Your task to perform on an android device: add a label to a message in the gmail app Image 0: 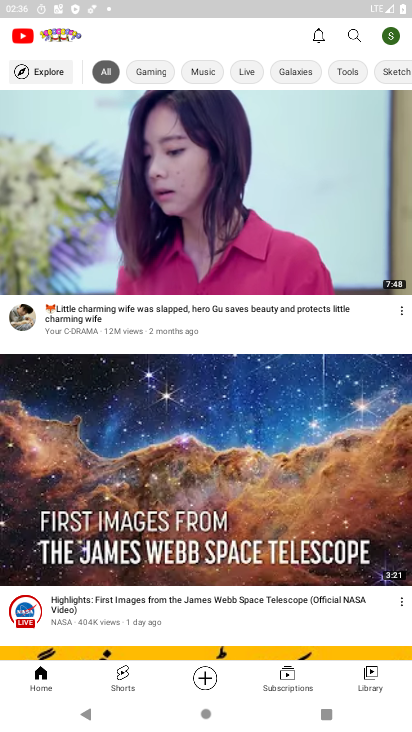
Step 0: press home button
Your task to perform on an android device: add a label to a message in the gmail app Image 1: 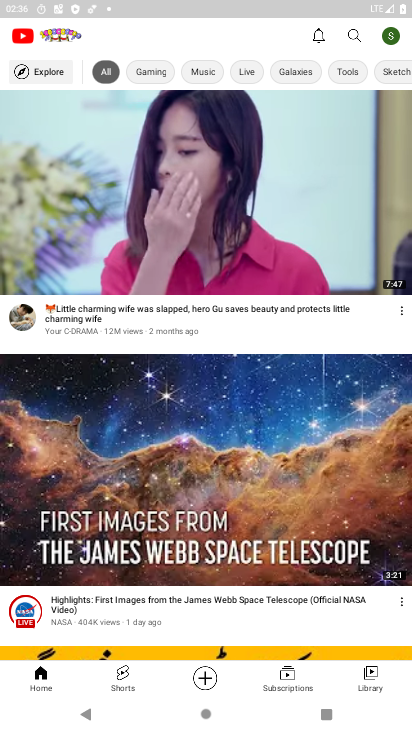
Step 1: press home button
Your task to perform on an android device: add a label to a message in the gmail app Image 2: 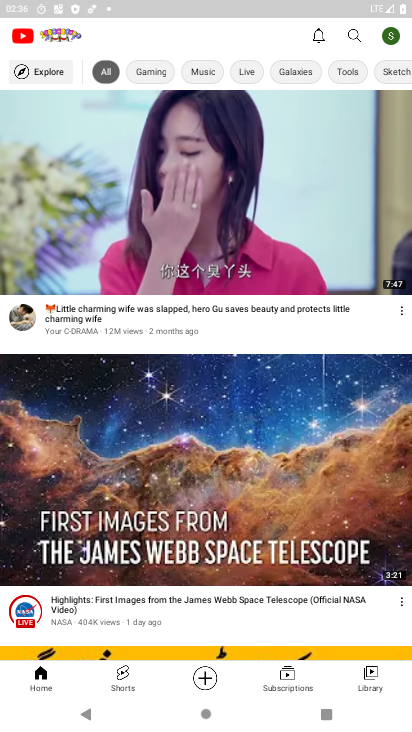
Step 2: click (324, 120)
Your task to perform on an android device: add a label to a message in the gmail app Image 3: 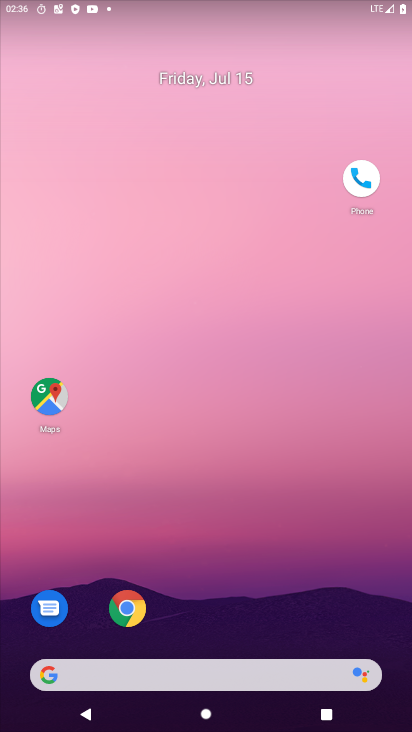
Step 3: drag from (174, 626) to (180, 3)
Your task to perform on an android device: add a label to a message in the gmail app Image 4: 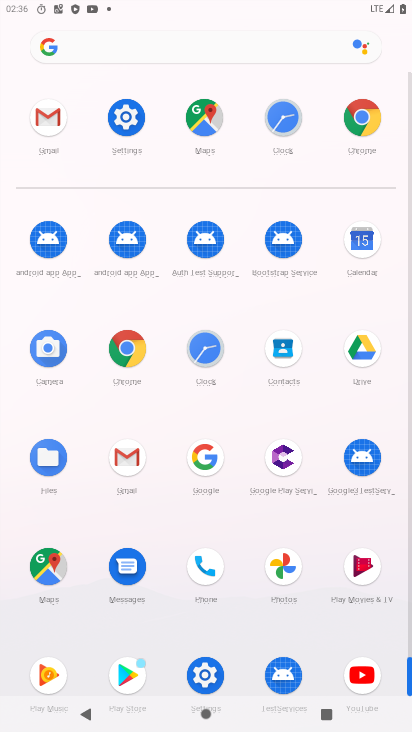
Step 4: click (125, 446)
Your task to perform on an android device: add a label to a message in the gmail app Image 5: 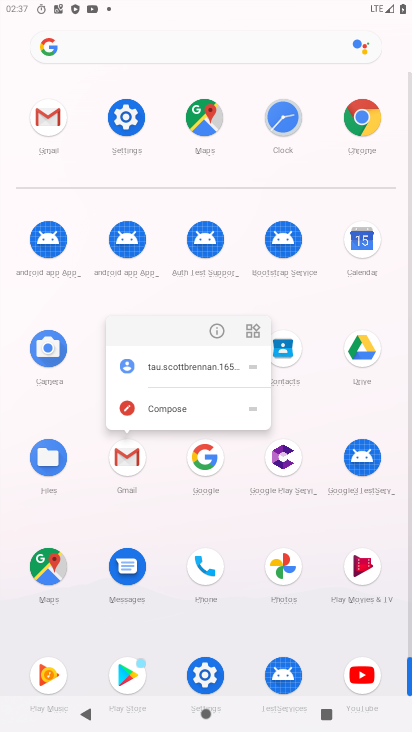
Step 5: click (212, 326)
Your task to perform on an android device: add a label to a message in the gmail app Image 6: 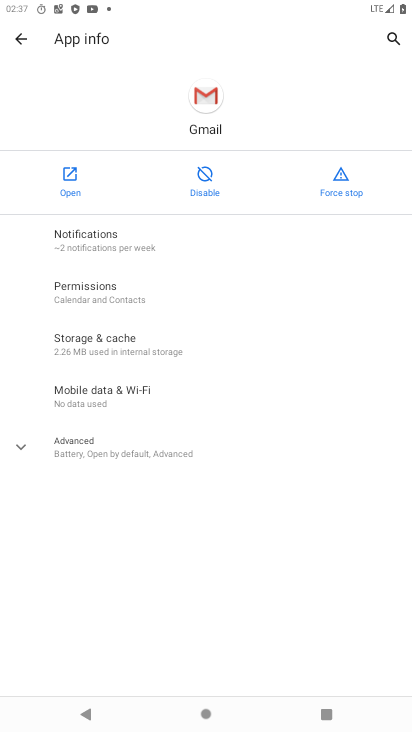
Step 6: click (65, 189)
Your task to perform on an android device: add a label to a message in the gmail app Image 7: 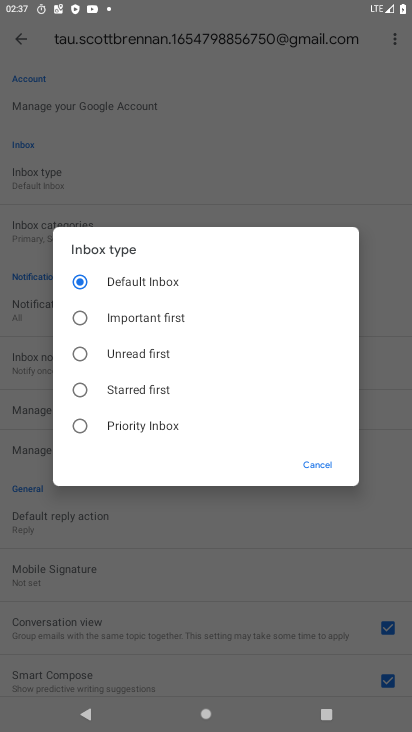
Step 7: click (319, 455)
Your task to perform on an android device: add a label to a message in the gmail app Image 8: 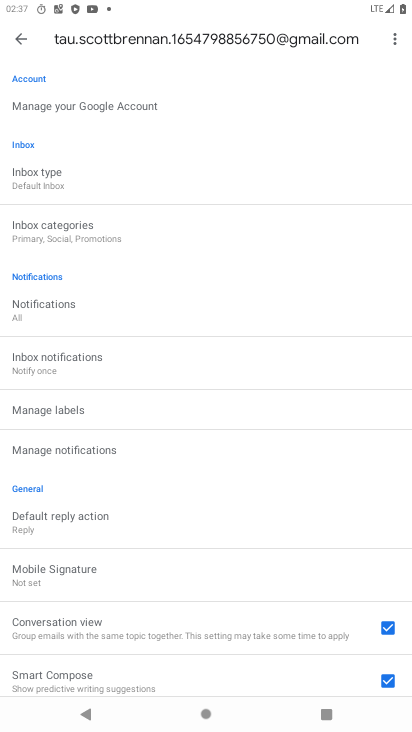
Step 8: press back button
Your task to perform on an android device: add a label to a message in the gmail app Image 9: 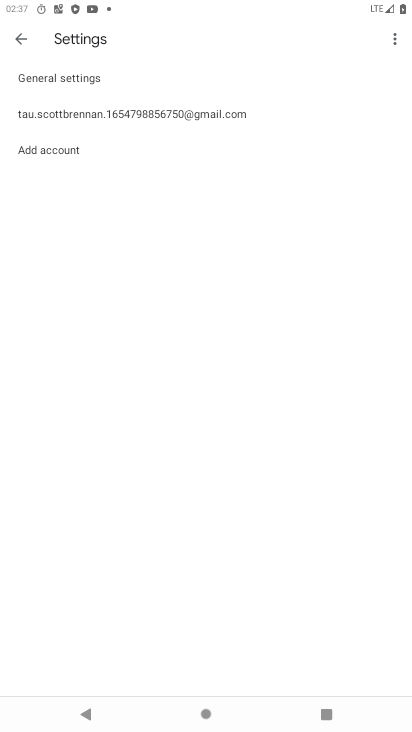
Step 9: press back button
Your task to perform on an android device: add a label to a message in the gmail app Image 10: 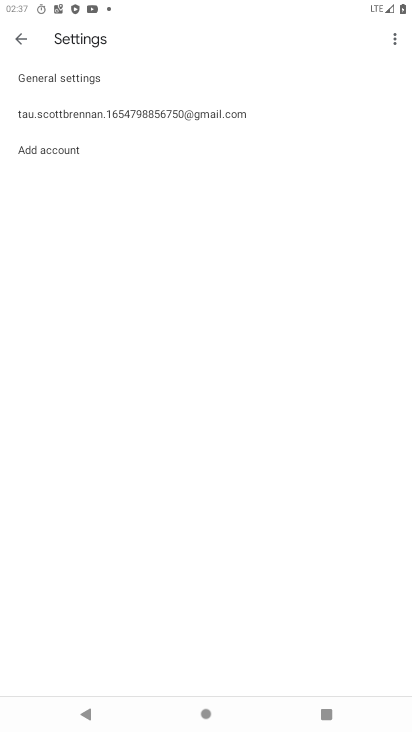
Step 10: click (16, 31)
Your task to perform on an android device: add a label to a message in the gmail app Image 11: 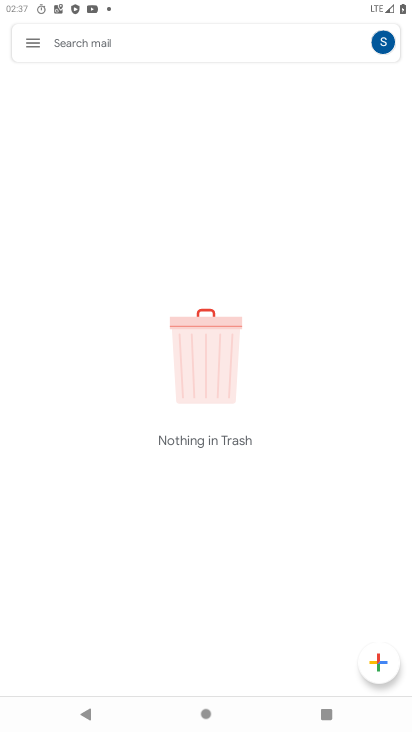
Step 11: task complete